Your task to perform on an android device: open app "TextNow: Call + Text Unlimited" (install if not already installed) Image 0: 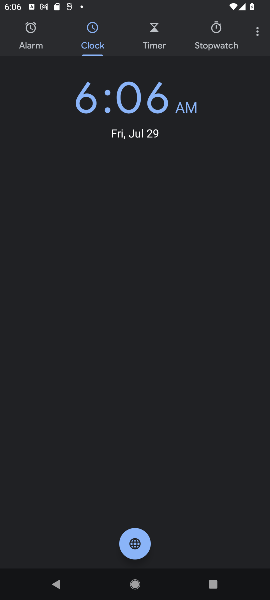
Step 0: press home button
Your task to perform on an android device: open app "TextNow: Call + Text Unlimited" (install if not already installed) Image 1: 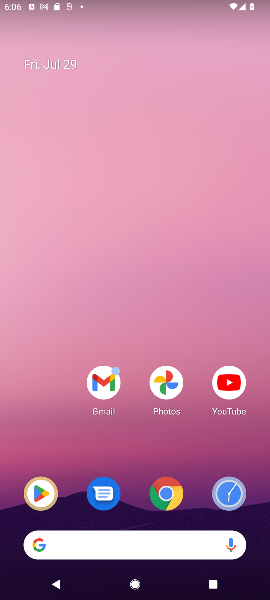
Step 1: drag from (157, 591) to (147, 68)
Your task to perform on an android device: open app "TextNow: Call + Text Unlimited" (install if not already installed) Image 2: 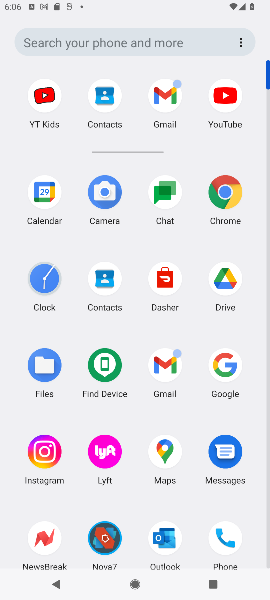
Step 2: drag from (133, 519) to (134, 238)
Your task to perform on an android device: open app "TextNow: Call + Text Unlimited" (install if not already installed) Image 3: 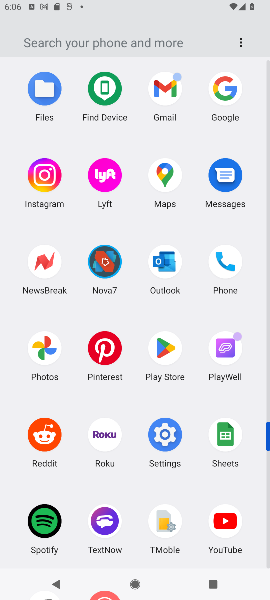
Step 3: click (161, 349)
Your task to perform on an android device: open app "TextNow: Call + Text Unlimited" (install if not already installed) Image 4: 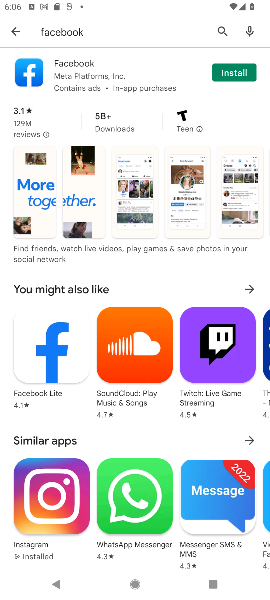
Step 4: click (218, 25)
Your task to perform on an android device: open app "TextNow: Call + Text Unlimited" (install if not already installed) Image 5: 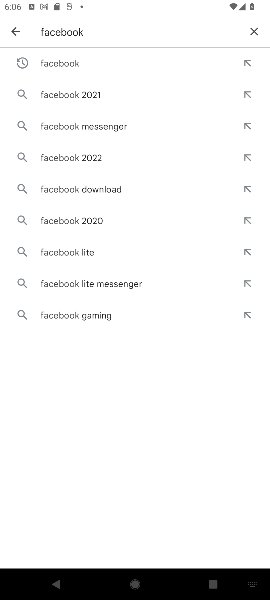
Step 5: click (254, 31)
Your task to perform on an android device: open app "TextNow: Call + Text Unlimited" (install if not already installed) Image 6: 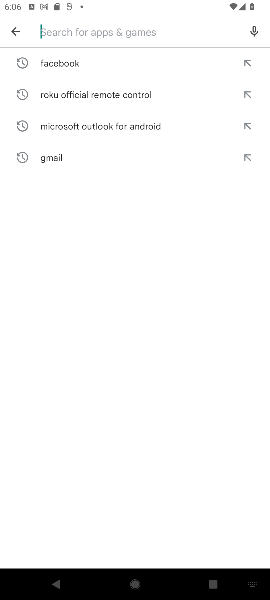
Step 6: type "TextNow: Call + Text Unlimited"
Your task to perform on an android device: open app "TextNow: Call + Text Unlimited" (install if not already installed) Image 7: 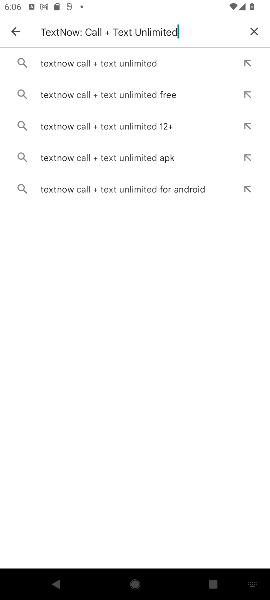
Step 7: click (103, 60)
Your task to perform on an android device: open app "TextNow: Call + Text Unlimited" (install if not already installed) Image 8: 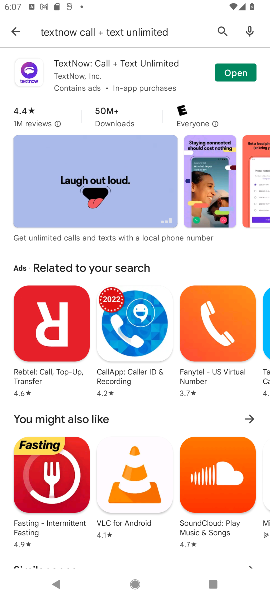
Step 8: click (242, 72)
Your task to perform on an android device: open app "TextNow: Call + Text Unlimited" (install if not already installed) Image 9: 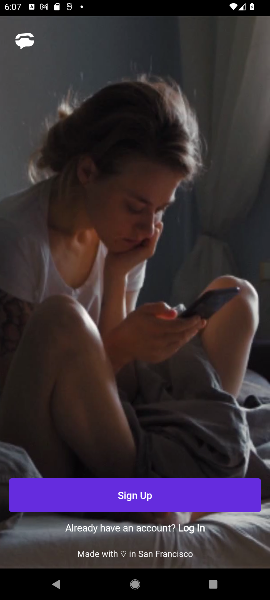
Step 9: task complete